Your task to perform on an android device: What is the speed of a plane? Image 0: 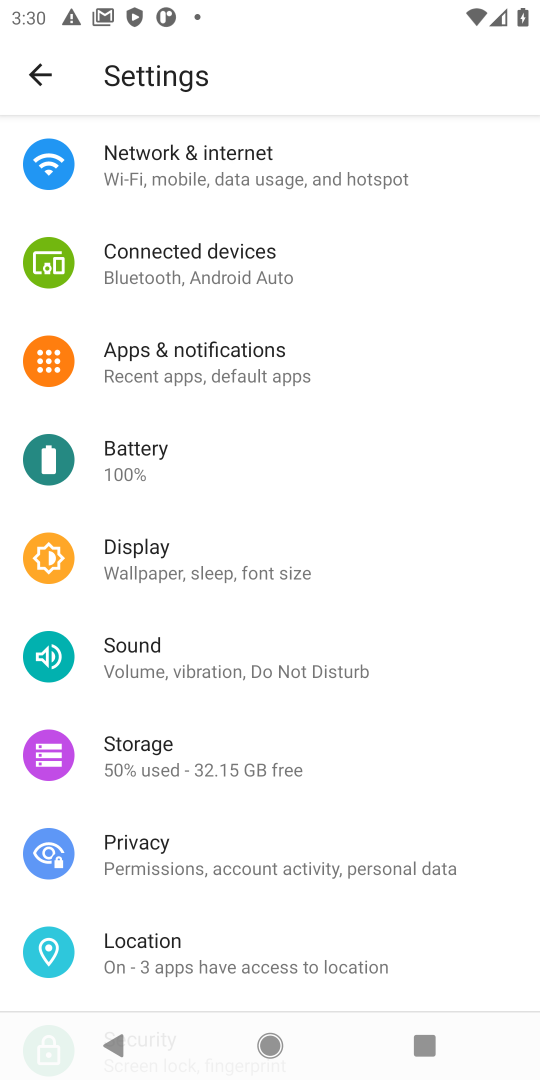
Step 0: press home button
Your task to perform on an android device: What is the speed of a plane? Image 1: 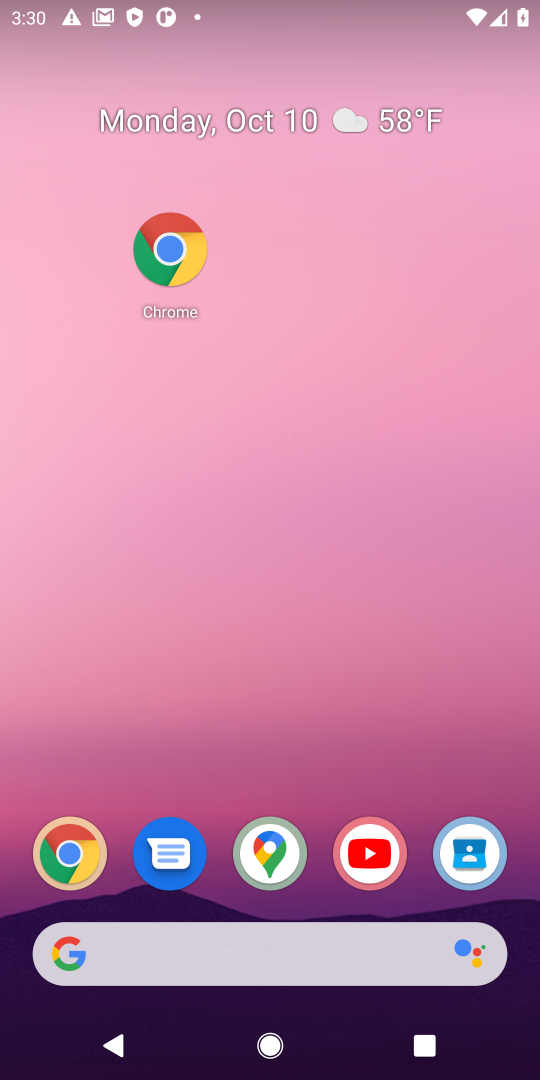
Step 1: click (80, 855)
Your task to perform on an android device: What is the speed of a plane? Image 2: 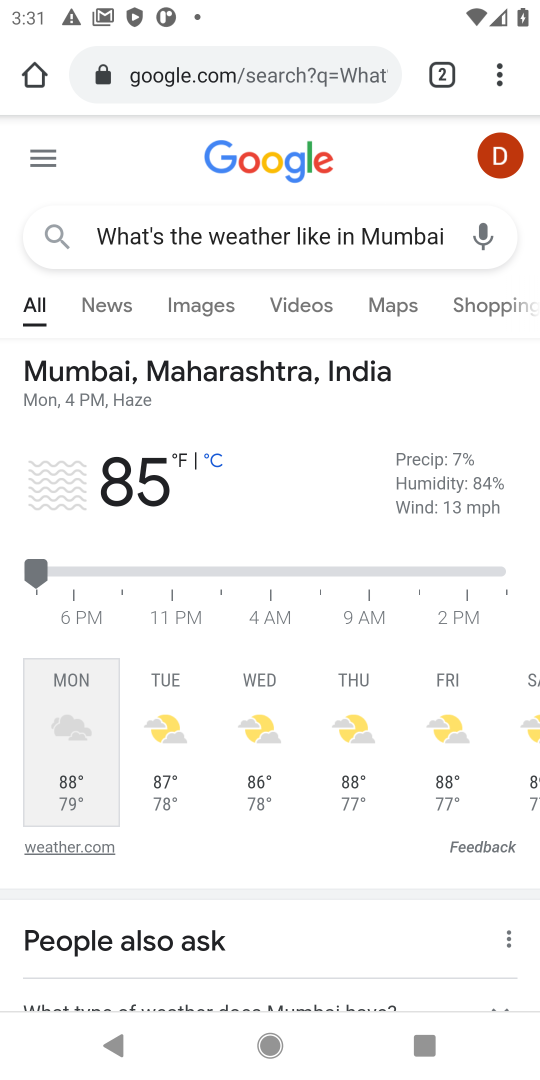
Step 2: click (228, 75)
Your task to perform on an android device: What is the speed of a plane? Image 3: 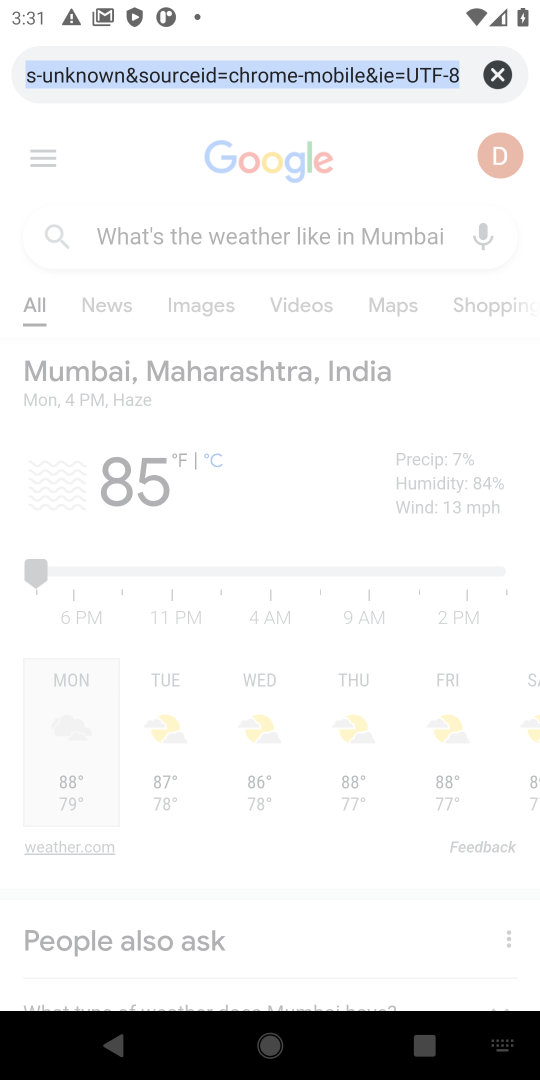
Step 3: type "What is the speed of a plane?"
Your task to perform on an android device: What is the speed of a plane? Image 4: 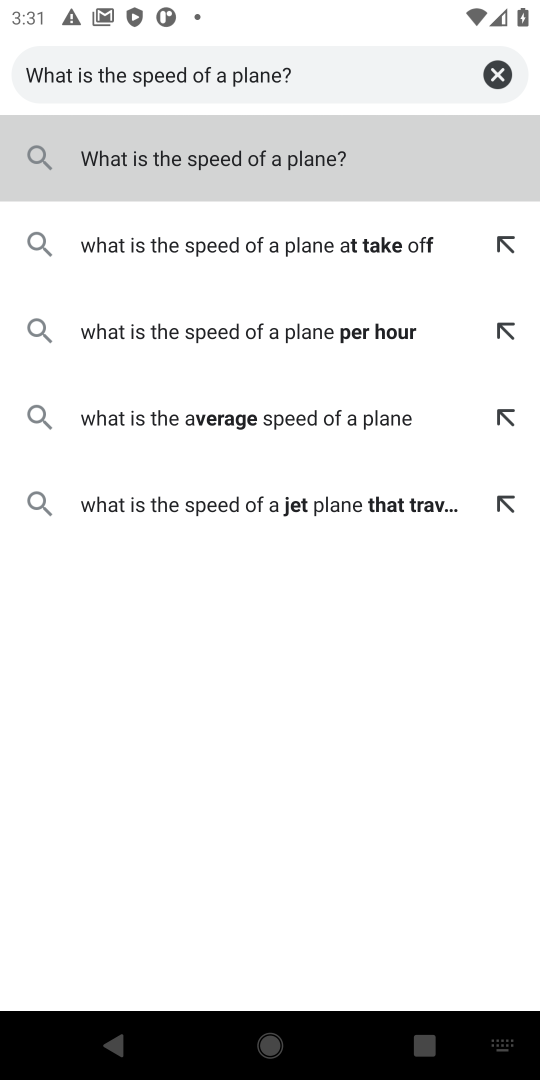
Step 4: click (250, 171)
Your task to perform on an android device: What is the speed of a plane? Image 5: 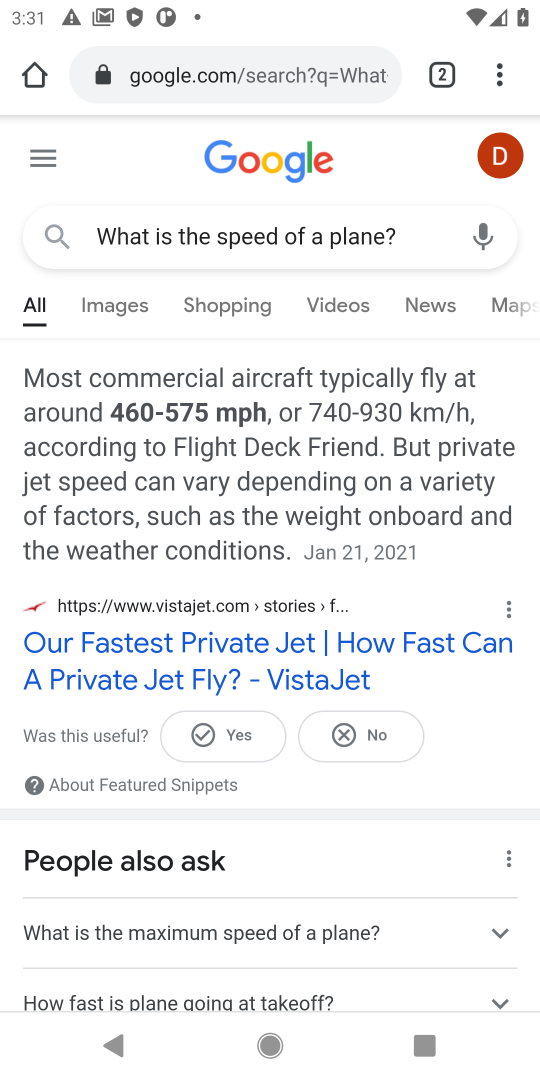
Step 5: task complete